Your task to perform on an android device: Open eBay Image 0: 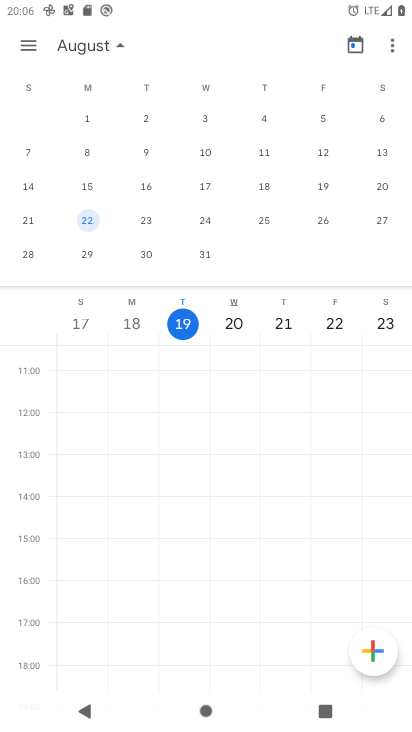
Step 0: press home button
Your task to perform on an android device: Open eBay Image 1: 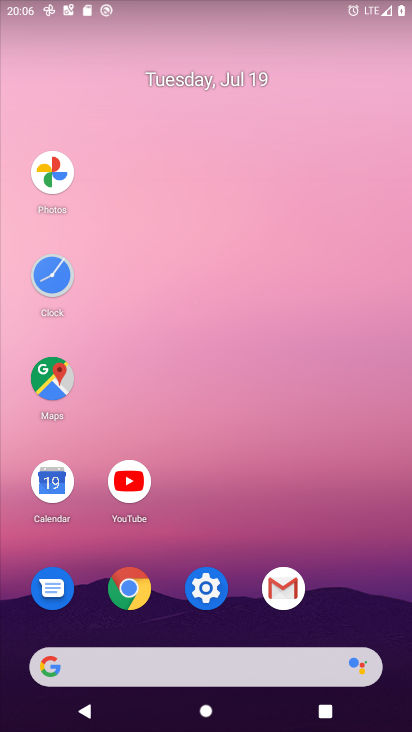
Step 1: click (135, 586)
Your task to perform on an android device: Open eBay Image 2: 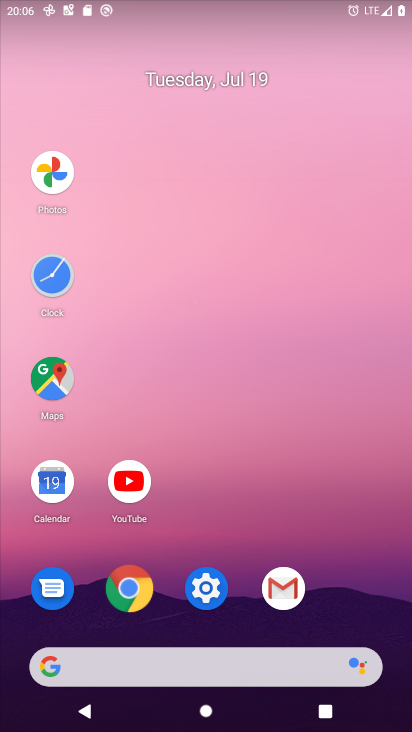
Step 2: click (135, 586)
Your task to perform on an android device: Open eBay Image 3: 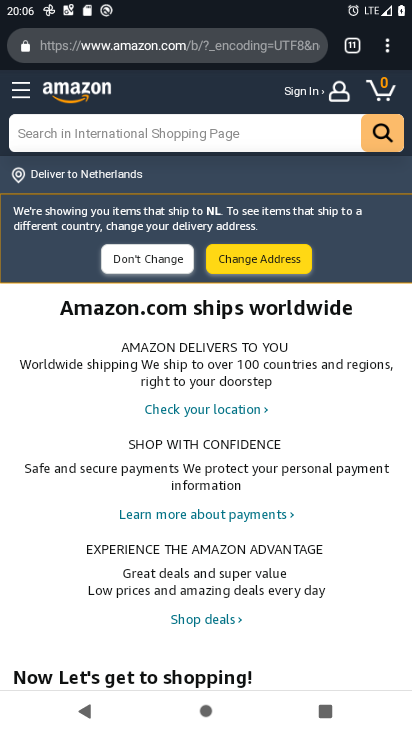
Step 3: click (392, 44)
Your task to perform on an android device: Open eBay Image 4: 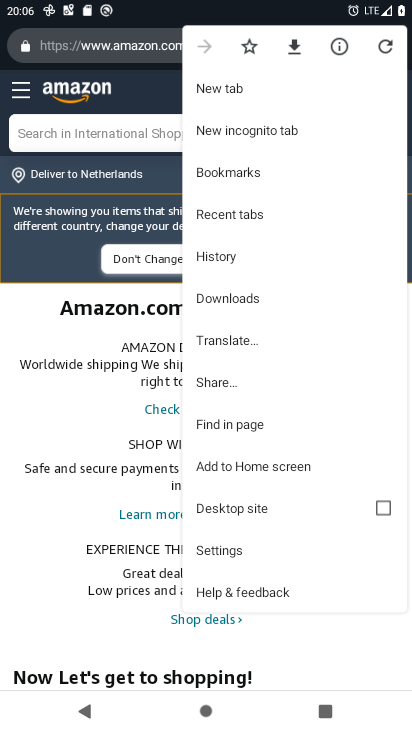
Step 4: click (221, 87)
Your task to perform on an android device: Open eBay Image 5: 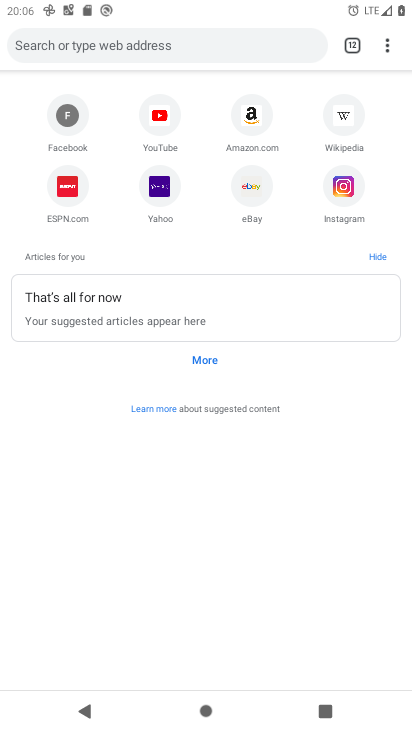
Step 5: click (253, 180)
Your task to perform on an android device: Open eBay Image 6: 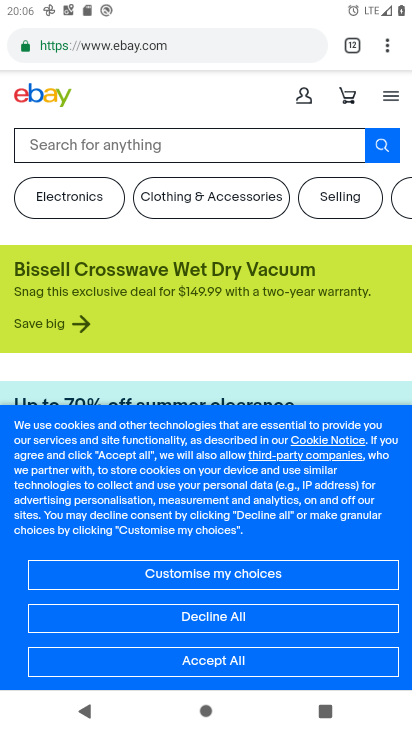
Step 6: task complete